Your task to perform on an android device: Search for Mexican restaurants on Maps Image 0: 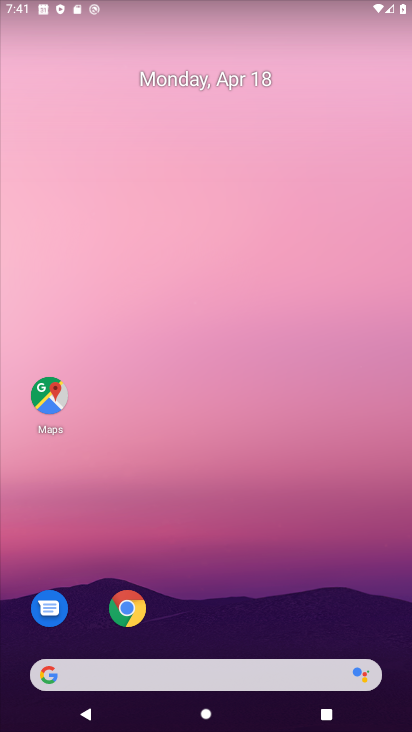
Step 0: click (55, 393)
Your task to perform on an android device: Search for Mexican restaurants on Maps Image 1: 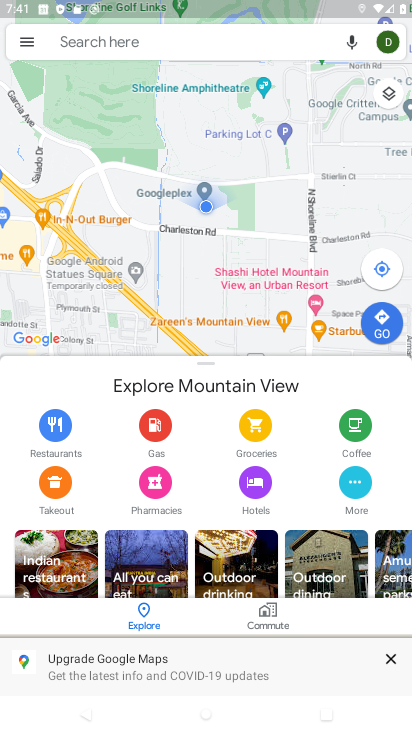
Step 1: click (176, 42)
Your task to perform on an android device: Search for Mexican restaurants on Maps Image 2: 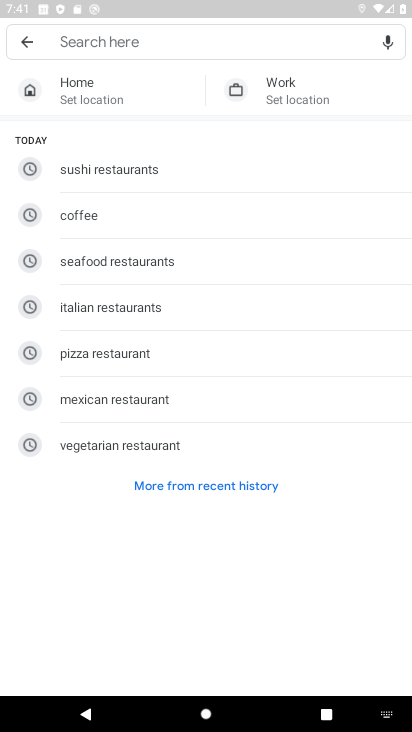
Step 2: type "Mexican restaurants"
Your task to perform on an android device: Search for Mexican restaurants on Maps Image 3: 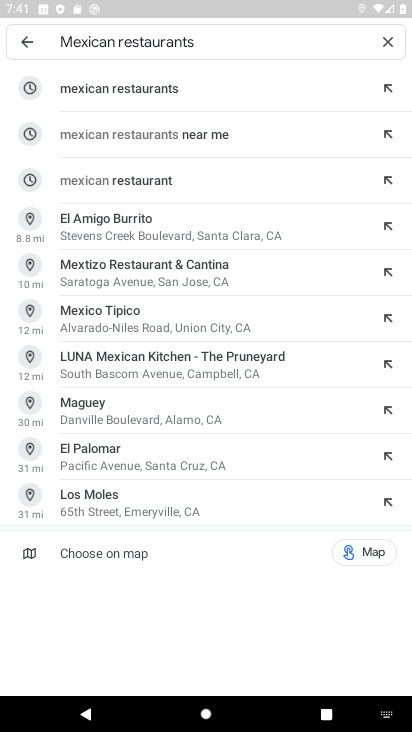
Step 3: click (162, 92)
Your task to perform on an android device: Search for Mexican restaurants on Maps Image 4: 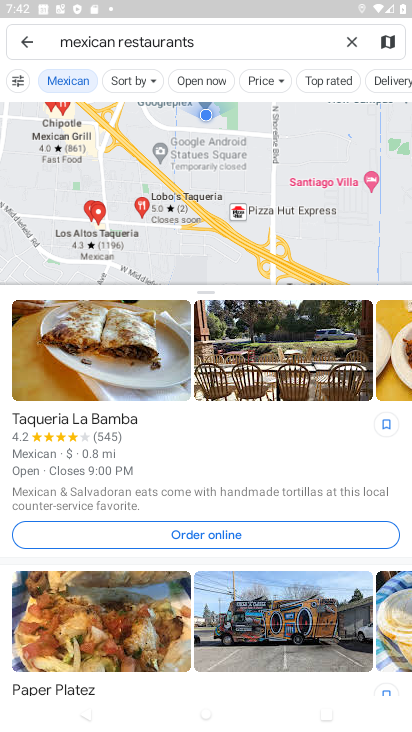
Step 4: task complete